Your task to perform on an android device: delete a single message in the gmail app Image 0: 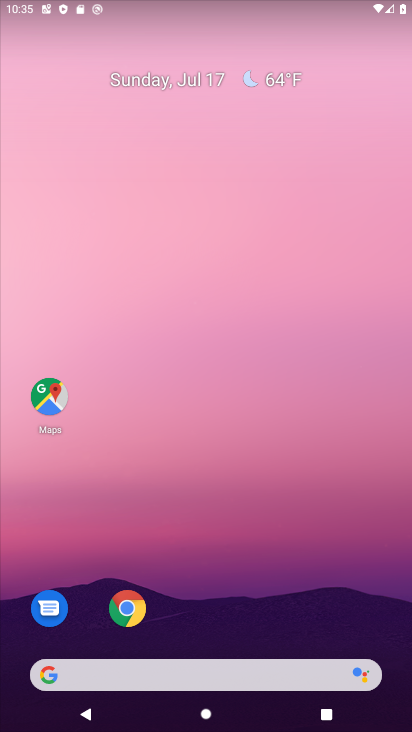
Step 0: drag from (367, 631) to (154, 3)
Your task to perform on an android device: delete a single message in the gmail app Image 1: 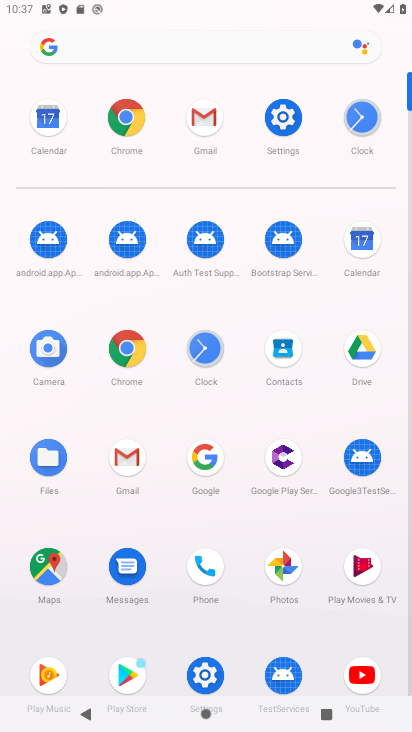
Step 1: click (133, 451)
Your task to perform on an android device: delete a single message in the gmail app Image 2: 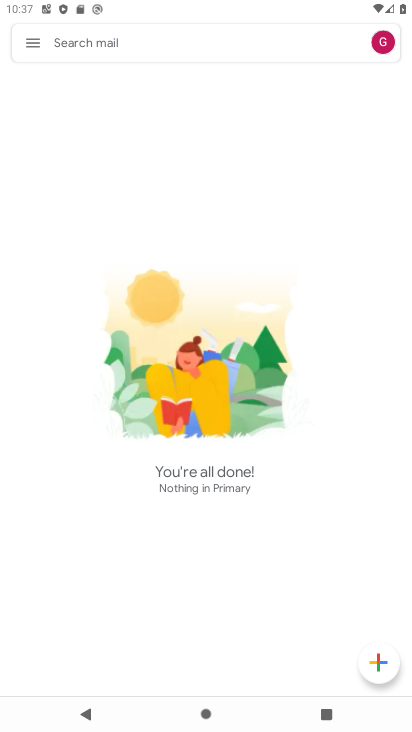
Step 2: task complete